Your task to perform on an android device: Go to settings Image 0: 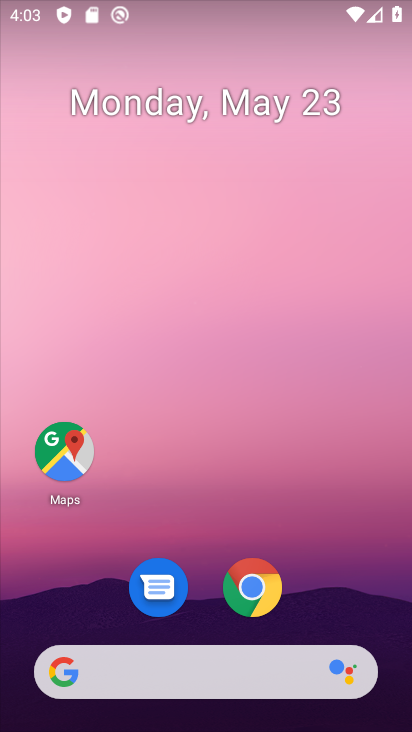
Step 0: drag from (196, 625) to (254, 180)
Your task to perform on an android device: Go to settings Image 1: 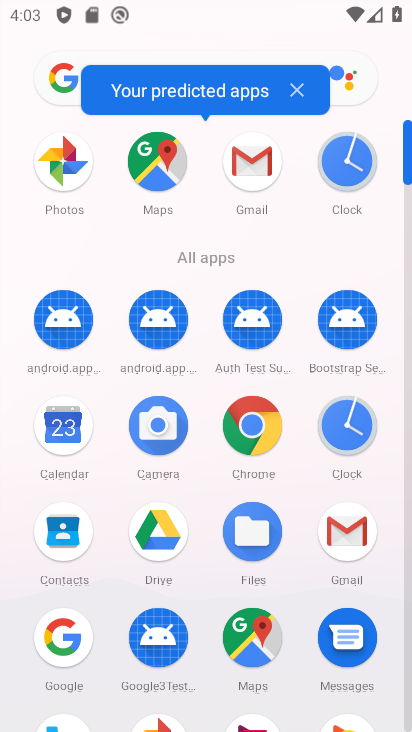
Step 1: drag from (102, 579) to (132, 259)
Your task to perform on an android device: Go to settings Image 2: 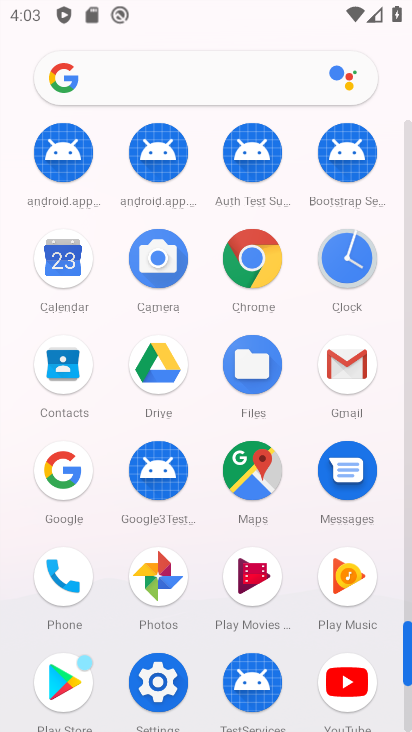
Step 2: click (148, 693)
Your task to perform on an android device: Go to settings Image 3: 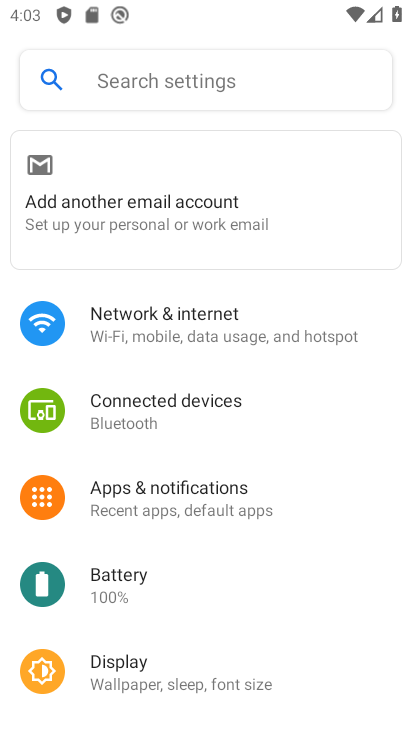
Step 3: drag from (181, 607) to (209, 272)
Your task to perform on an android device: Go to settings Image 4: 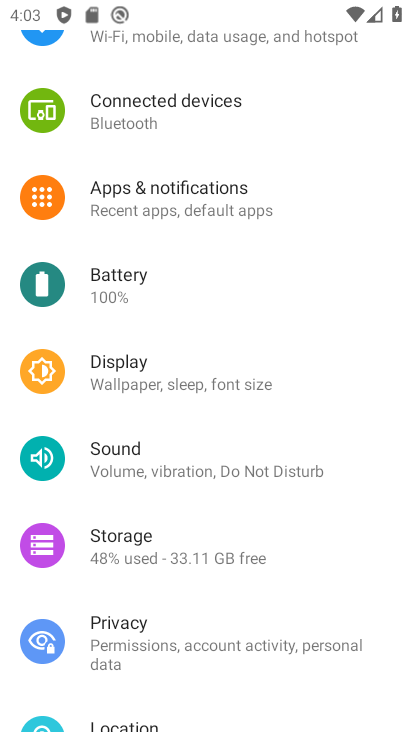
Step 4: click (139, 463)
Your task to perform on an android device: Go to settings Image 5: 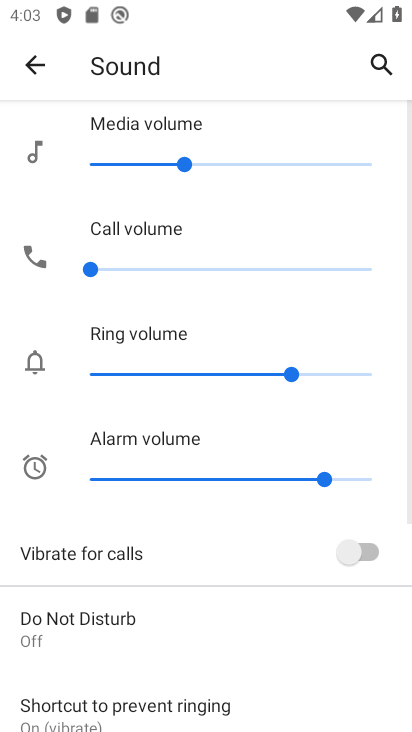
Step 5: click (38, 55)
Your task to perform on an android device: Go to settings Image 6: 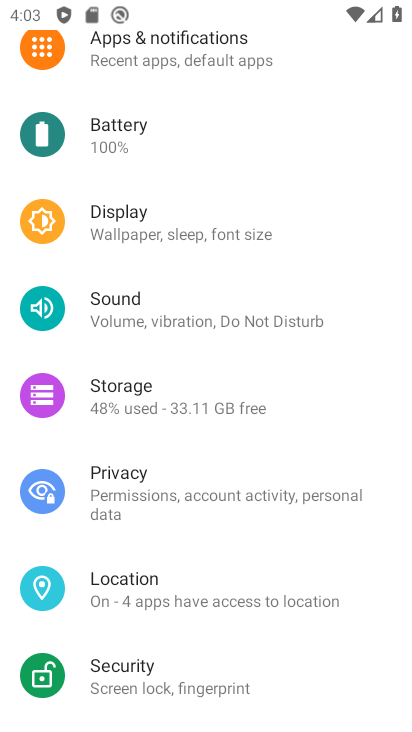
Step 6: task complete